Your task to perform on an android device: toggle show notifications on the lock screen Image 0: 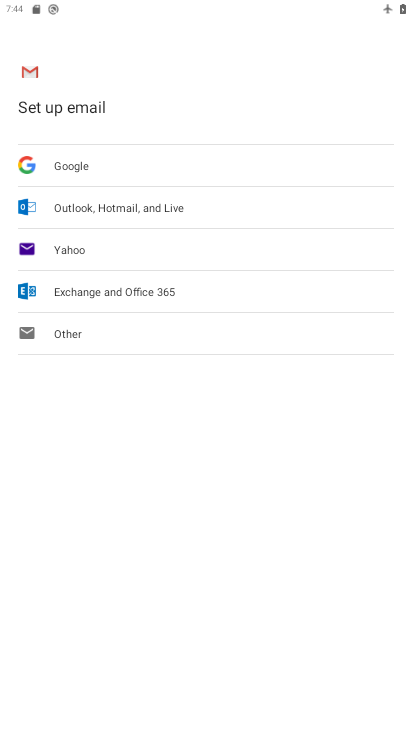
Step 0: press home button
Your task to perform on an android device: toggle show notifications on the lock screen Image 1: 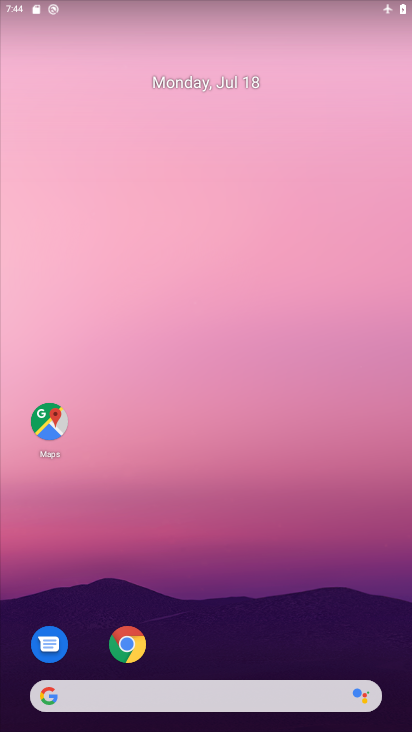
Step 1: drag from (342, 624) to (378, 106)
Your task to perform on an android device: toggle show notifications on the lock screen Image 2: 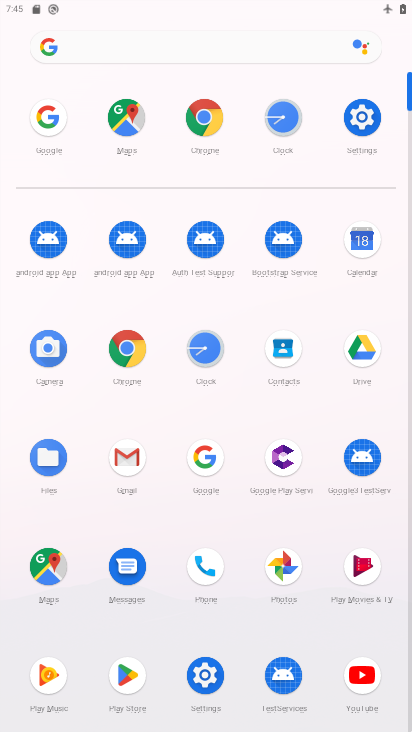
Step 2: click (360, 119)
Your task to perform on an android device: toggle show notifications on the lock screen Image 3: 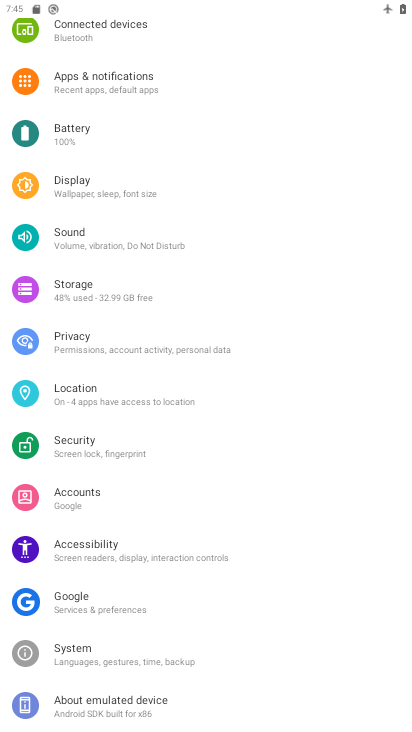
Step 3: drag from (351, 130) to (356, 192)
Your task to perform on an android device: toggle show notifications on the lock screen Image 4: 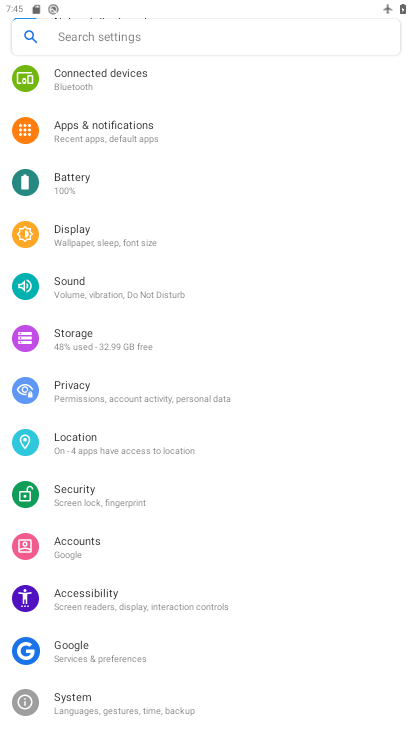
Step 4: drag from (340, 138) to (341, 309)
Your task to perform on an android device: toggle show notifications on the lock screen Image 5: 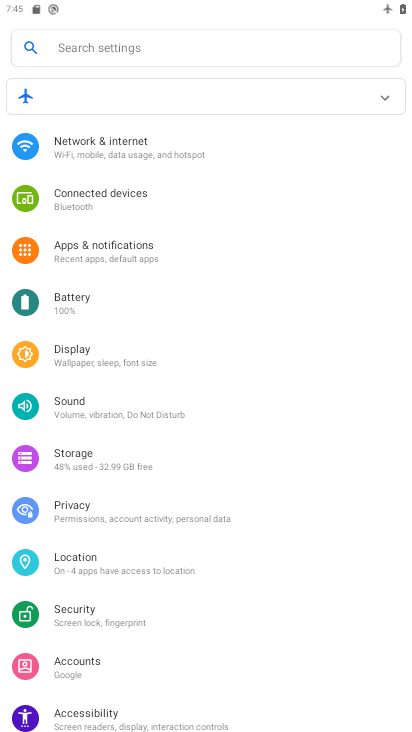
Step 5: click (163, 250)
Your task to perform on an android device: toggle show notifications on the lock screen Image 6: 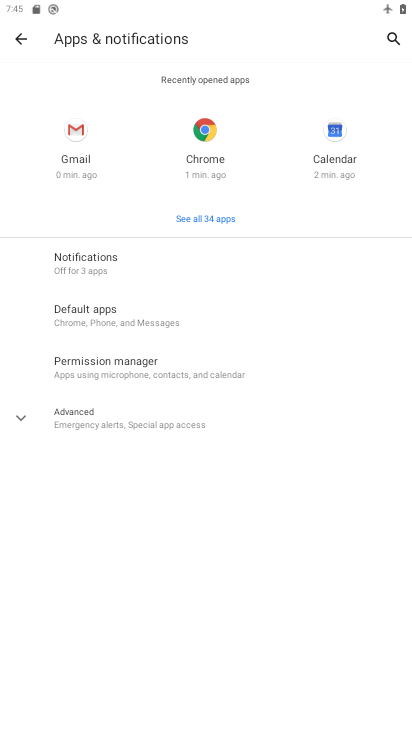
Step 6: click (137, 275)
Your task to perform on an android device: toggle show notifications on the lock screen Image 7: 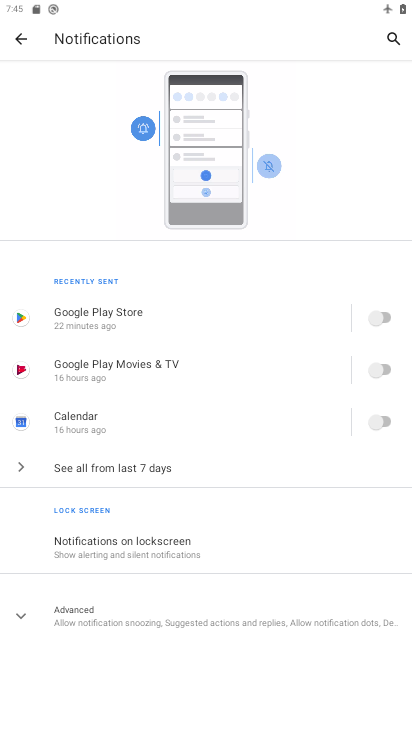
Step 7: drag from (255, 485) to (265, 382)
Your task to perform on an android device: toggle show notifications on the lock screen Image 8: 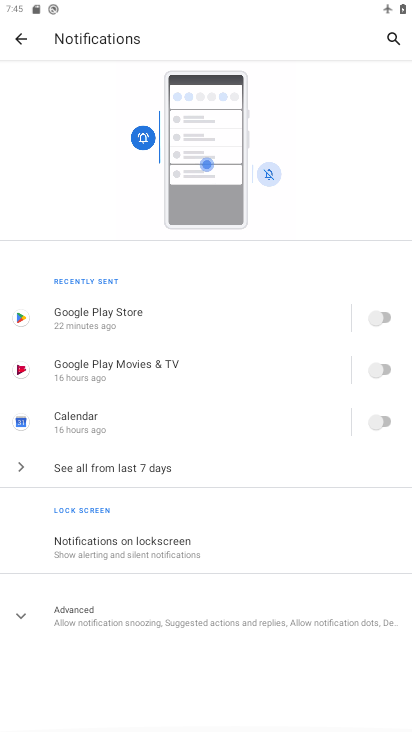
Step 8: click (279, 538)
Your task to perform on an android device: toggle show notifications on the lock screen Image 9: 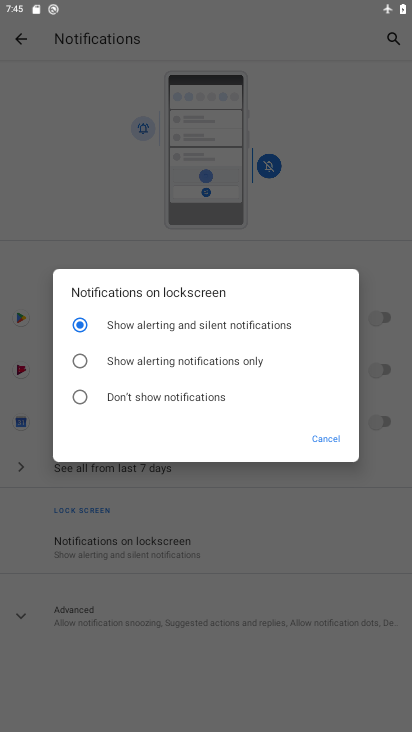
Step 9: click (224, 367)
Your task to perform on an android device: toggle show notifications on the lock screen Image 10: 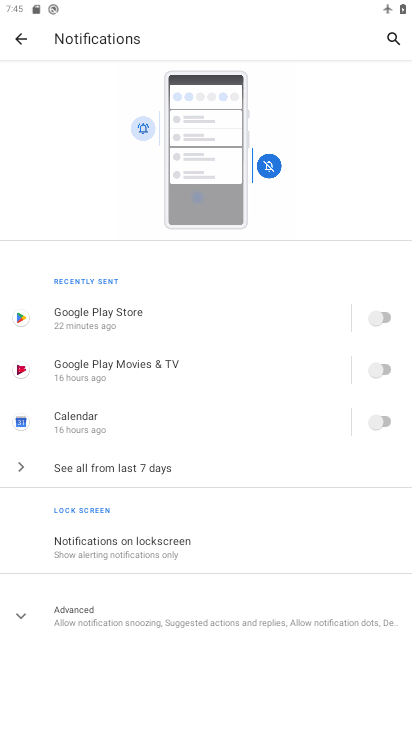
Step 10: task complete